Your task to perform on an android device: Open the web browser Image 0: 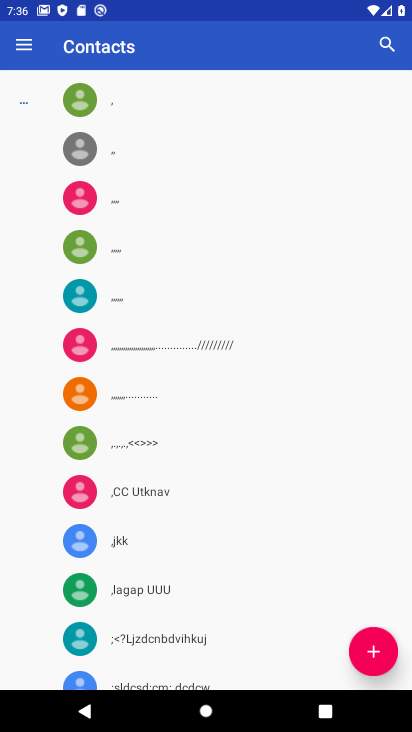
Step 0: press home button
Your task to perform on an android device: Open the web browser Image 1: 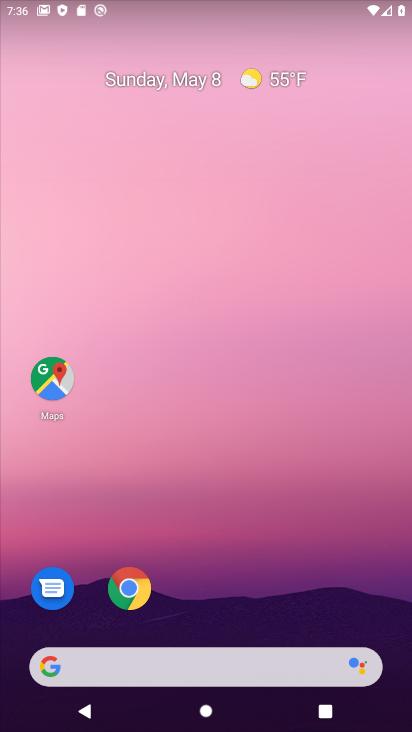
Step 1: drag from (329, 601) to (289, 66)
Your task to perform on an android device: Open the web browser Image 2: 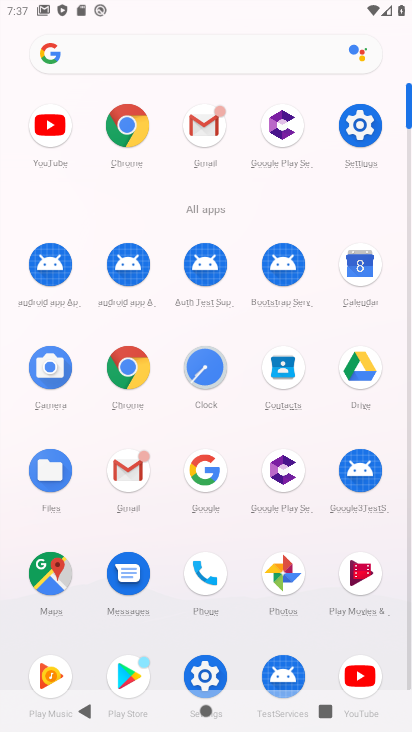
Step 2: click (118, 105)
Your task to perform on an android device: Open the web browser Image 3: 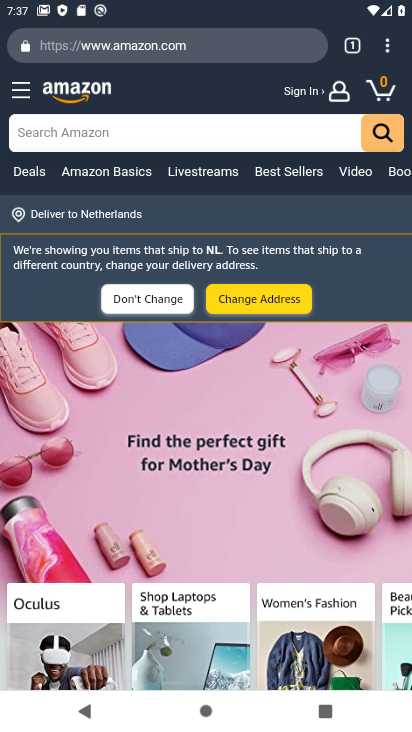
Step 3: task complete